Your task to perform on an android device: toggle notifications settings in the gmail app Image 0: 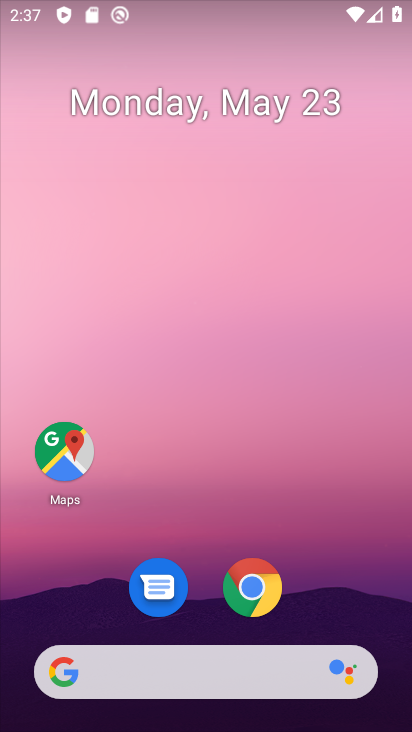
Step 0: drag from (211, 612) to (249, 245)
Your task to perform on an android device: toggle notifications settings in the gmail app Image 1: 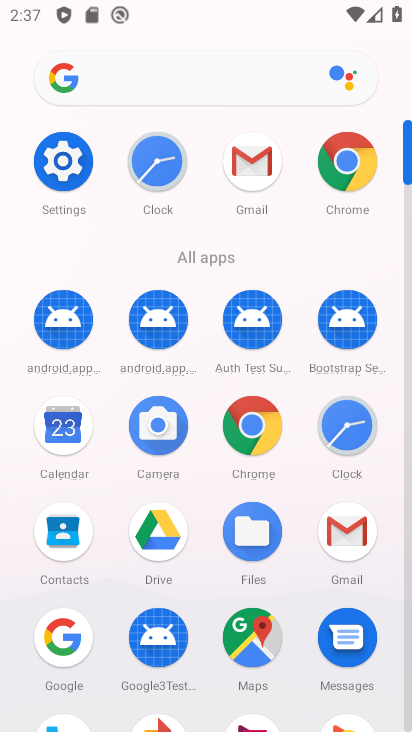
Step 1: click (329, 543)
Your task to perform on an android device: toggle notifications settings in the gmail app Image 2: 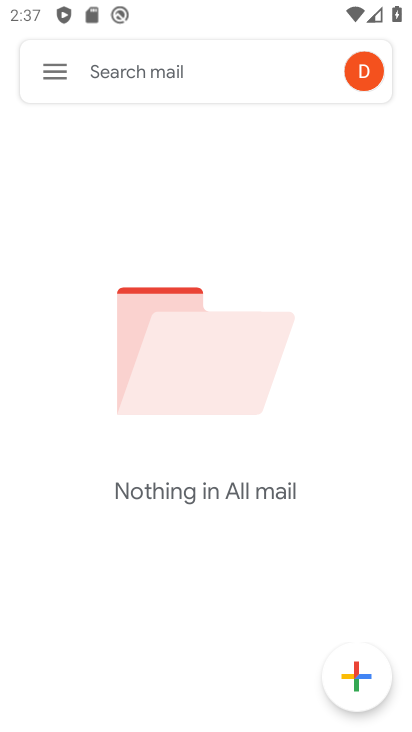
Step 2: click (46, 71)
Your task to perform on an android device: toggle notifications settings in the gmail app Image 3: 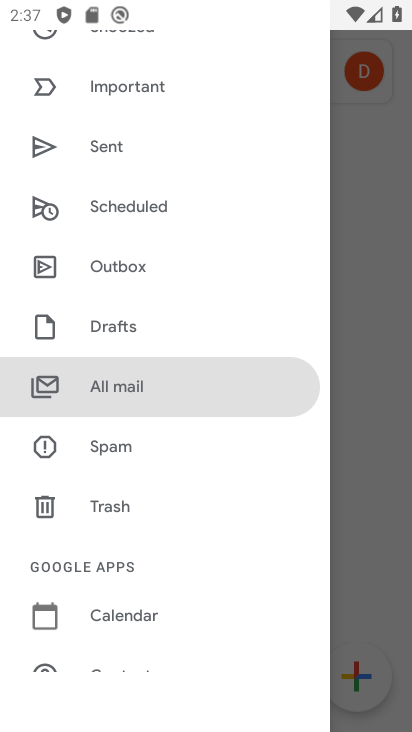
Step 3: drag from (150, 567) to (153, 321)
Your task to perform on an android device: toggle notifications settings in the gmail app Image 4: 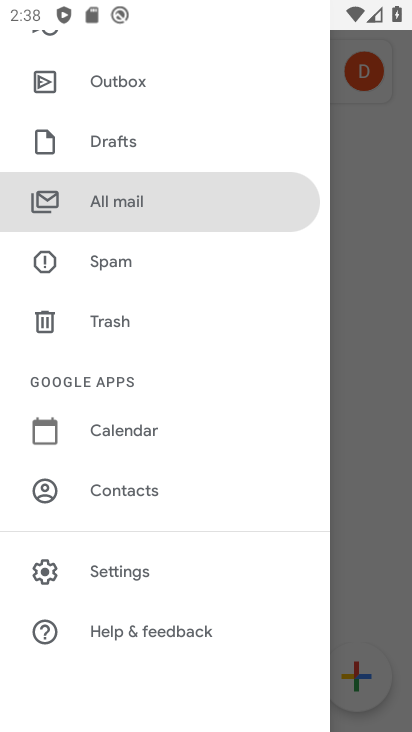
Step 4: click (150, 569)
Your task to perform on an android device: toggle notifications settings in the gmail app Image 5: 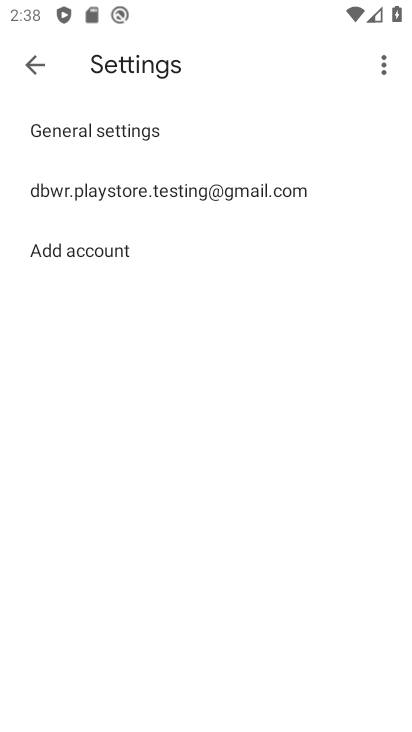
Step 5: click (102, 199)
Your task to perform on an android device: toggle notifications settings in the gmail app Image 6: 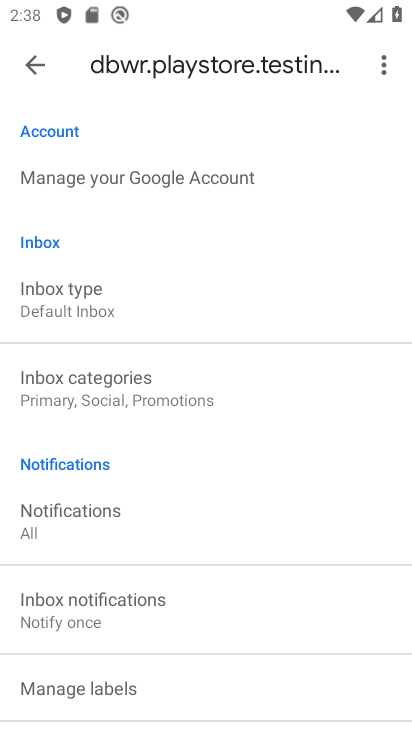
Step 6: drag from (167, 685) to (145, 416)
Your task to perform on an android device: toggle notifications settings in the gmail app Image 7: 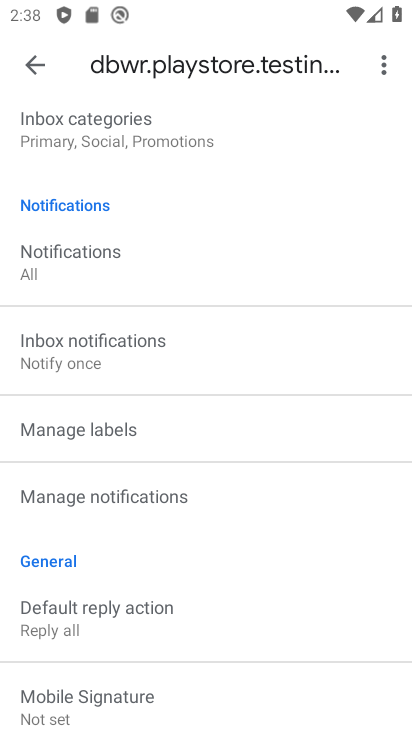
Step 7: click (133, 504)
Your task to perform on an android device: toggle notifications settings in the gmail app Image 8: 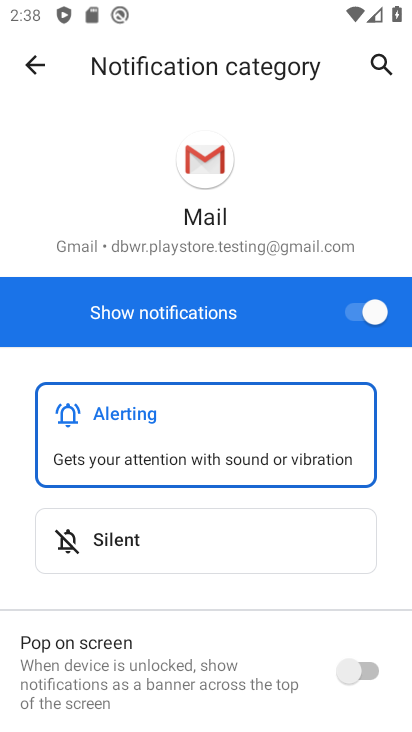
Step 8: click (350, 308)
Your task to perform on an android device: toggle notifications settings in the gmail app Image 9: 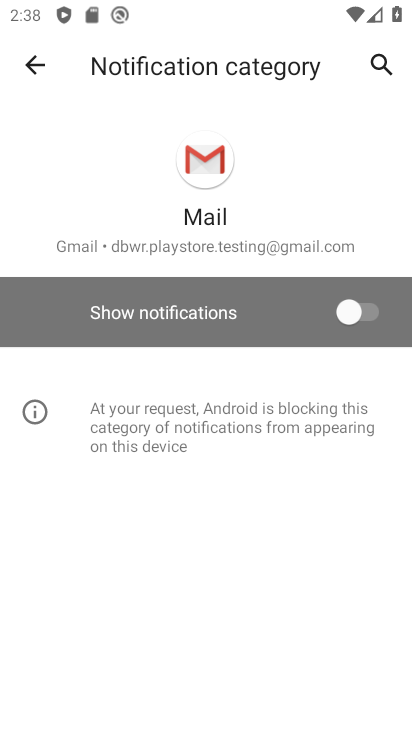
Step 9: task complete